Your task to perform on an android device: Open Android settings Image 0: 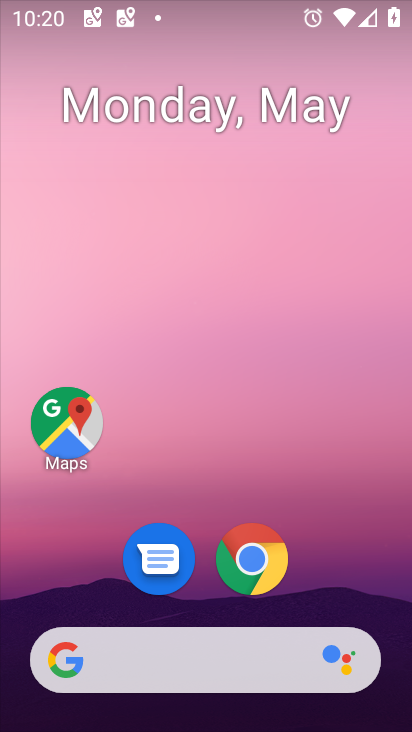
Step 0: drag from (405, 665) to (344, 48)
Your task to perform on an android device: Open Android settings Image 1: 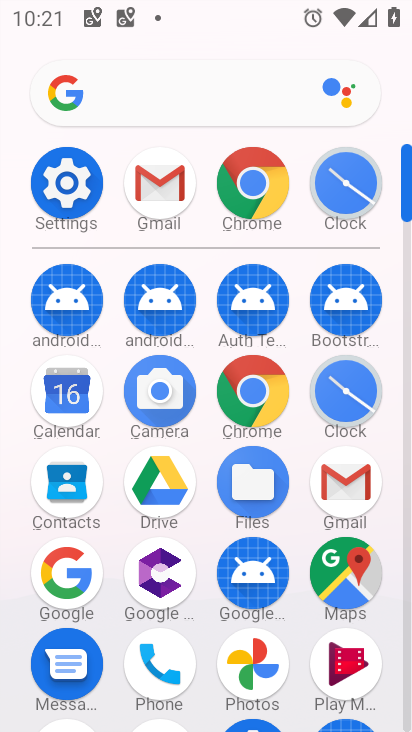
Step 1: click (52, 170)
Your task to perform on an android device: Open Android settings Image 2: 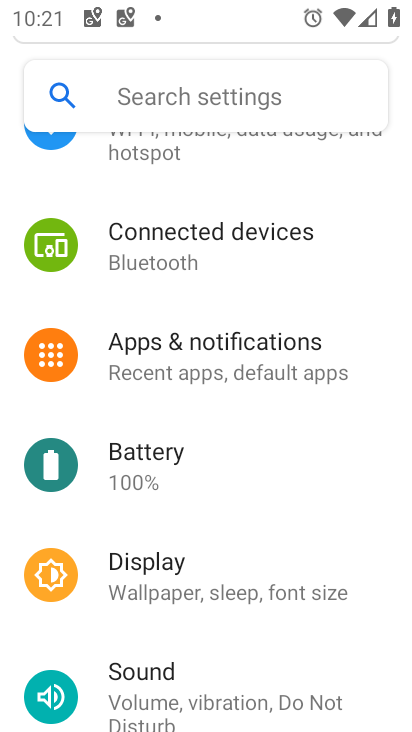
Step 2: drag from (173, 635) to (211, 125)
Your task to perform on an android device: Open Android settings Image 3: 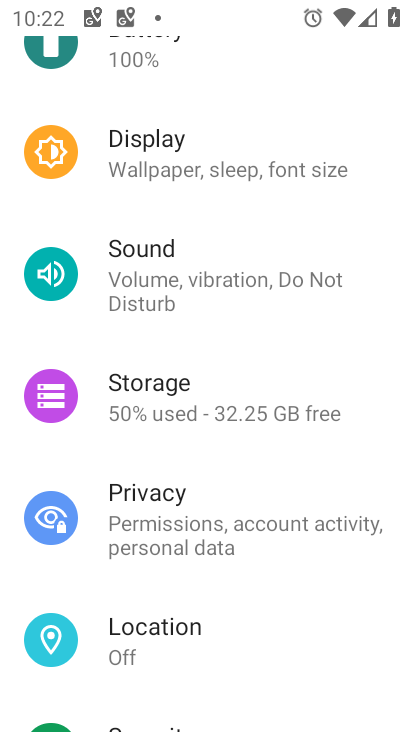
Step 3: drag from (122, 636) to (192, 114)
Your task to perform on an android device: Open Android settings Image 4: 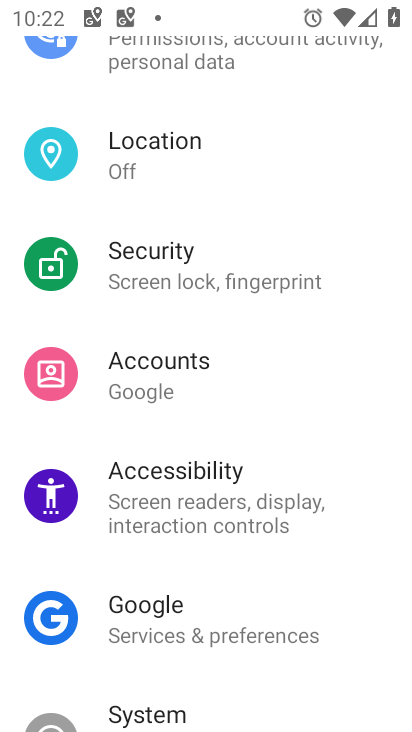
Step 4: drag from (158, 639) to (184, 215)
Your task to perform on an android device: Open Android settings Image 5: 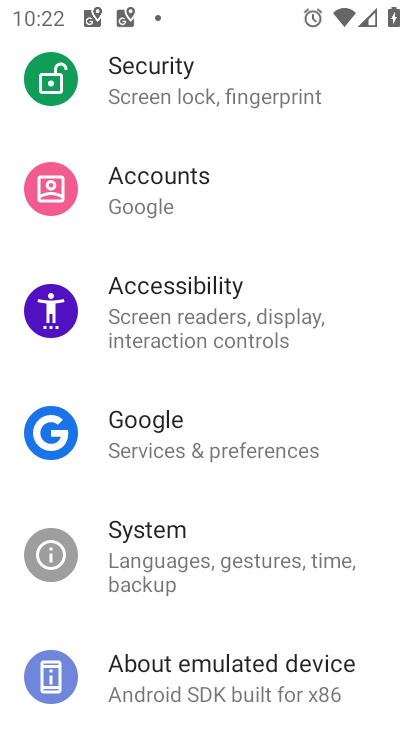
Step 5: click (160, 671)
Your task to perform on an android device: Open Android settings Image 6: 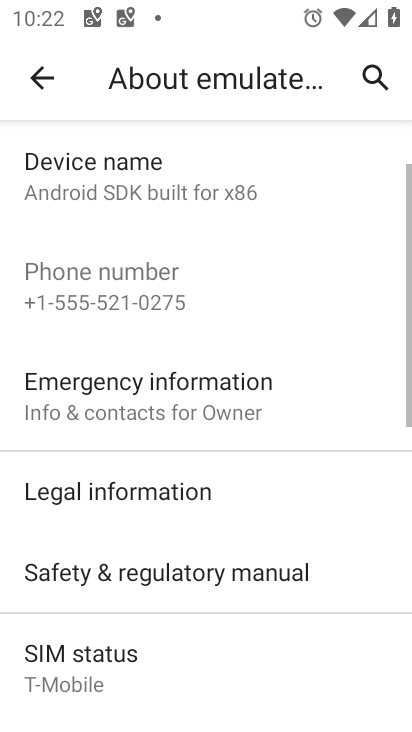
Step 6: drag from (144, 651) to (203, 246)
Your task to perform on an android device: Open Android settings Image 7: 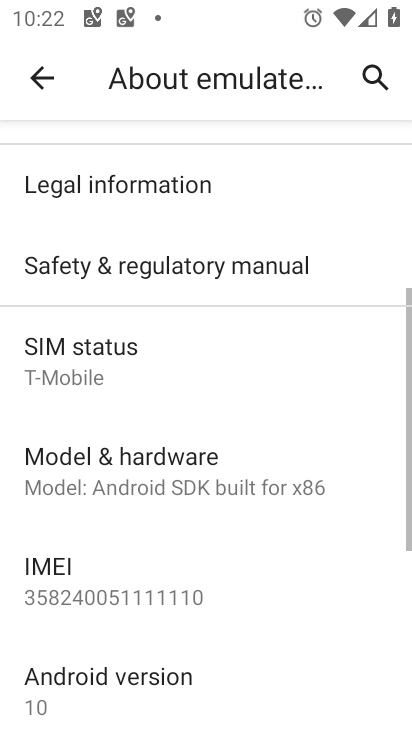
Step 7: drag from (130, 601) to (184, 225)
Your task to perform on an android device: Open Android settings Image 8: 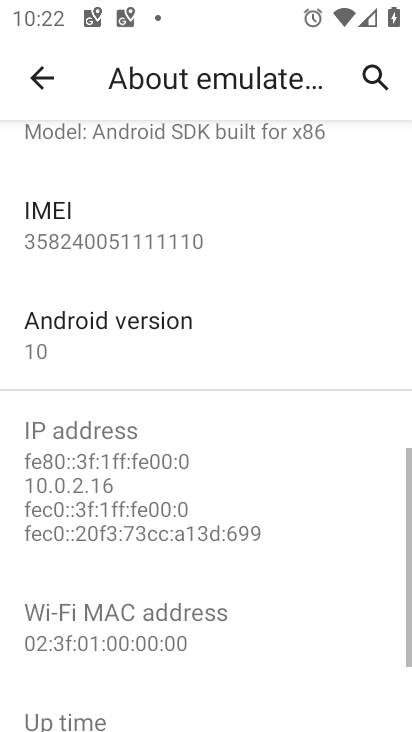
Step 8: click (139, 372)
Your task to perform on an android device: Open Android settings Image 9: 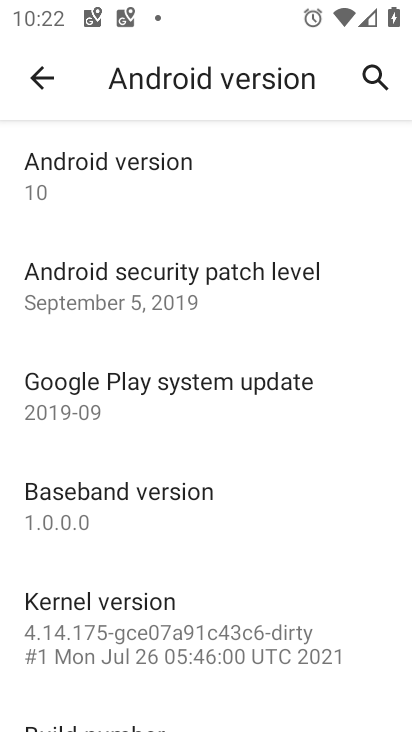
Step 9: task complete